Your task to perform on an android device: open chrome privacy settings Image 0: 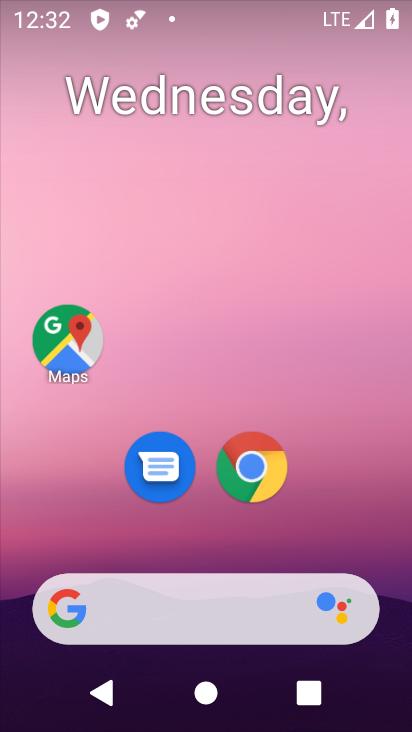
Step 0: drag from (347, 488) to (351, 108)
Your task to perform on an android device: open chrome privacy settings Image 1: 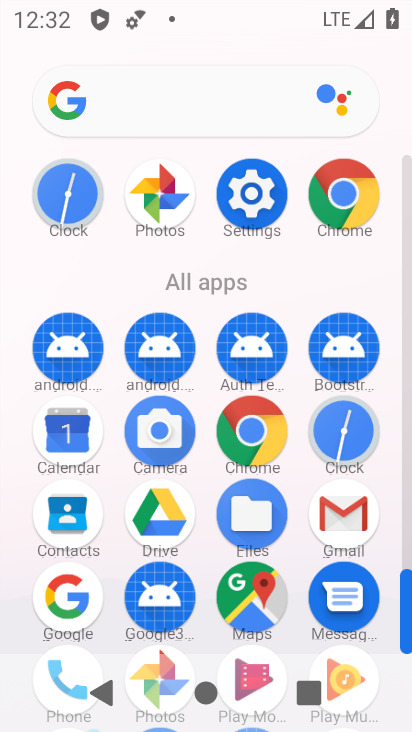
Step 1: click (261, 429)
Your task to perform on an android device: open chrome privacy settings Image 2: 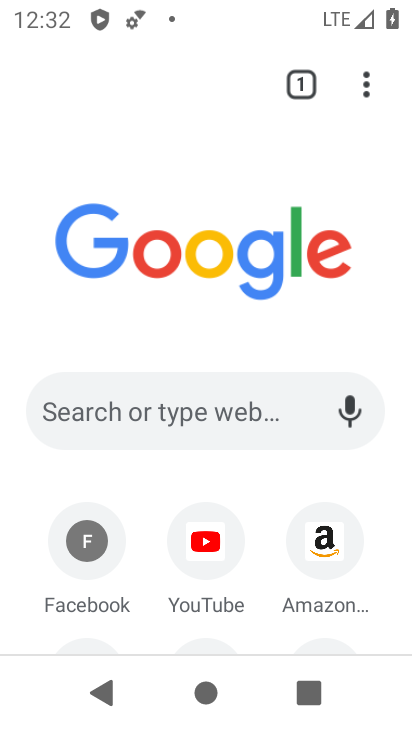
Step 2: click (365, 99)
Your task to perform on an android device: open chrome privacy settings Image 3: 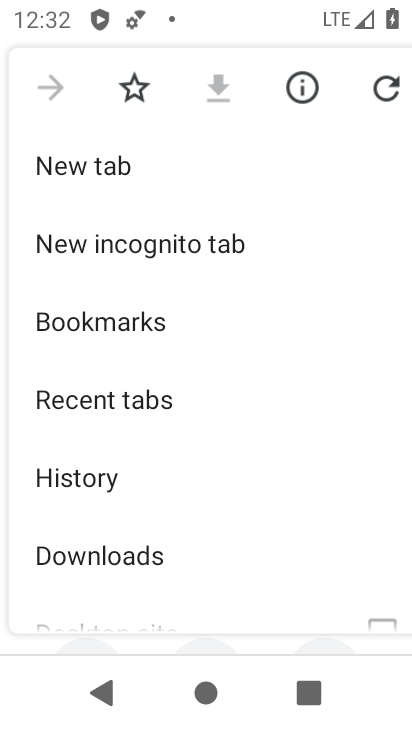
Step 3: drag from (239, 478) to (250, 351)
Your task to perform on an android device: open chrome privacy settings Image 4: 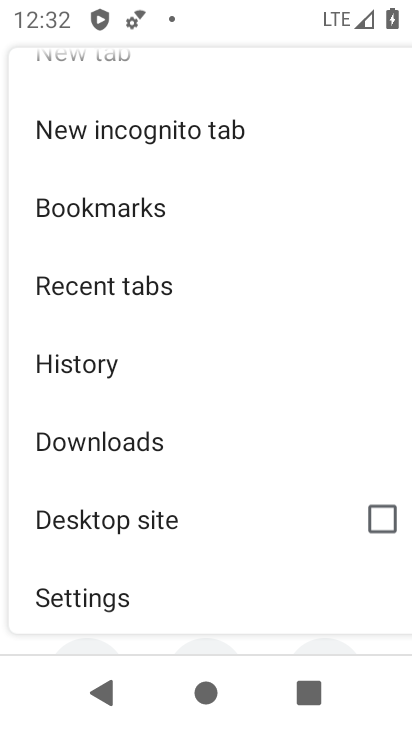
Step 4: drag from (252, 548) to (260, 406)
Your task to perform on an android device: open chrome privacy settings Image 5: 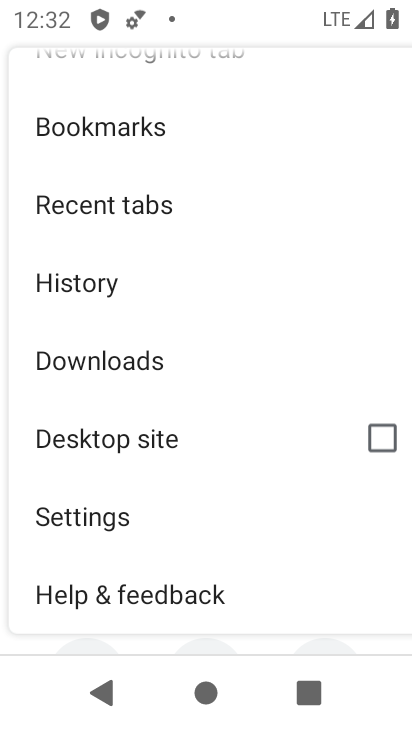
Step 5: click (136, 530)
Your task to perform on an android device: open chrome privacy settings Image 6: 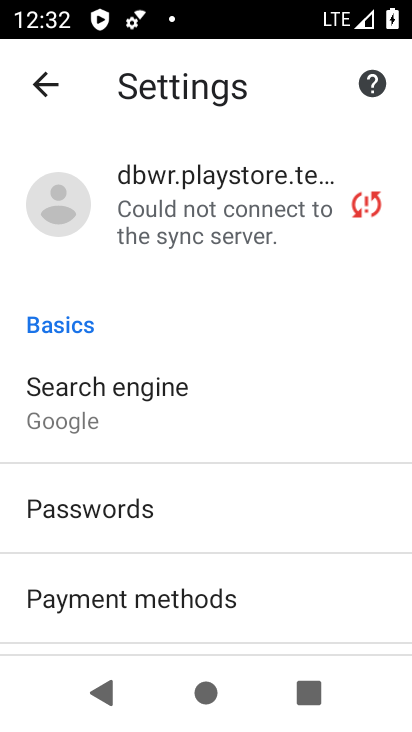
Step 6: drag from (284, 463) to (295, 317)
Your task to perform on an android device: open chrome privacy settings Image 7: 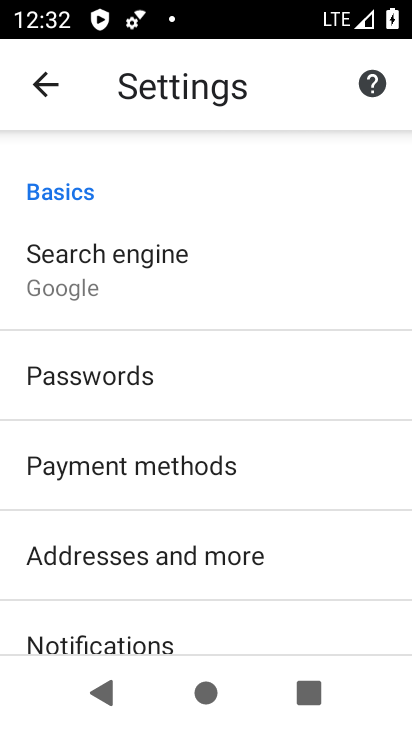
Step 7: drag from (300, 496) to (299, 330)
Your task to perform on an android device: open chrome privacy settings Image 8: 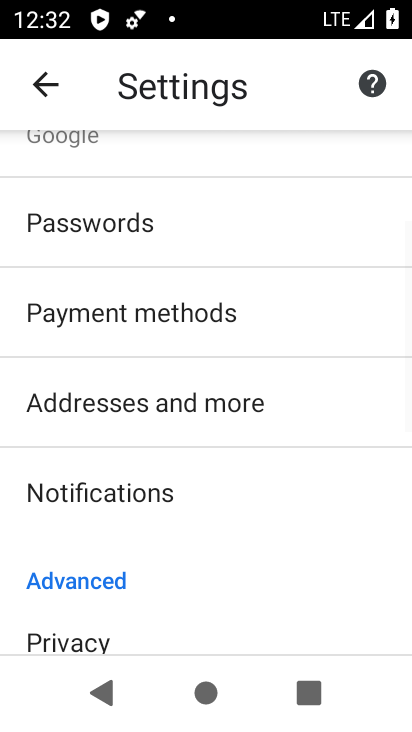
Step 8: drag from (316, 505) to (308, 347)
Your task to perform on an android device: open chrome privacy settings Image 9: 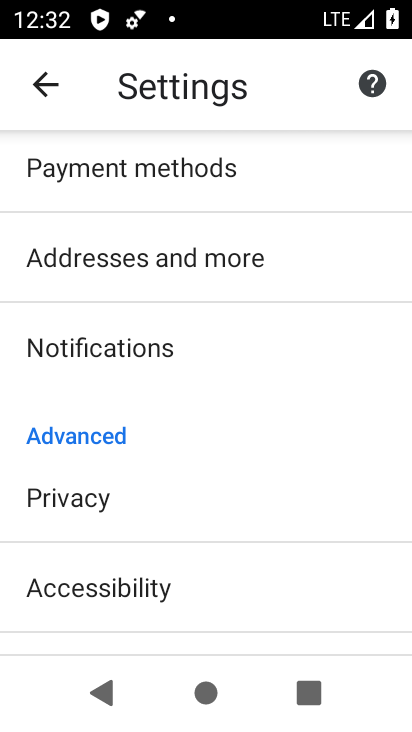
Step 9: drag from (303, 510) to (305, 398)
Your task to perform on an android device: open chrome privacy settings Image 10: 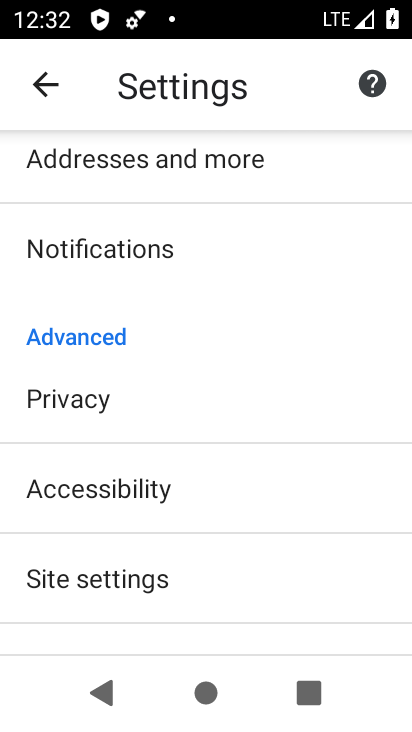
Step 10: click (150, 413)
Your task to perform on an android device: open chrome privacy settings Image 11: 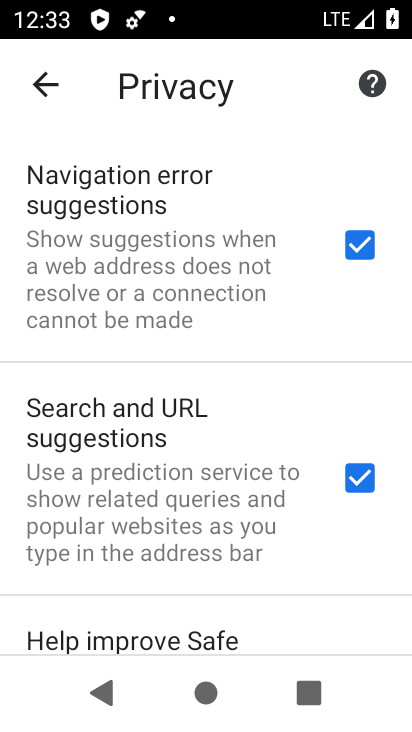
Step 11: task complete